Your task to perform on an android device: turn on bluetooth scan Image 0: 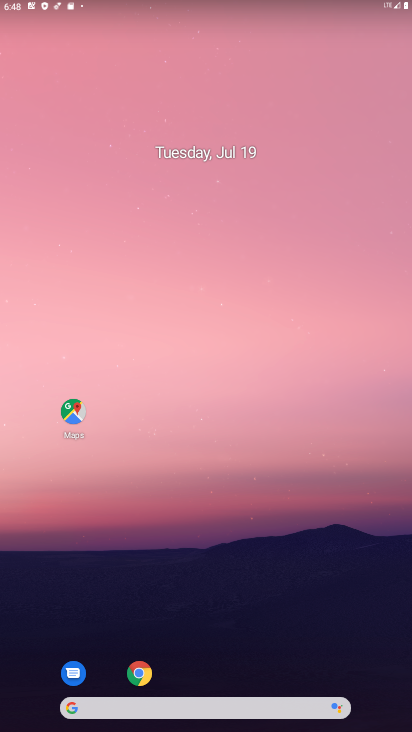
Step 0: drag from (369, 679) to (250, 16)
Your task to perform on an android device: turn on bluetooth scan Image 1: 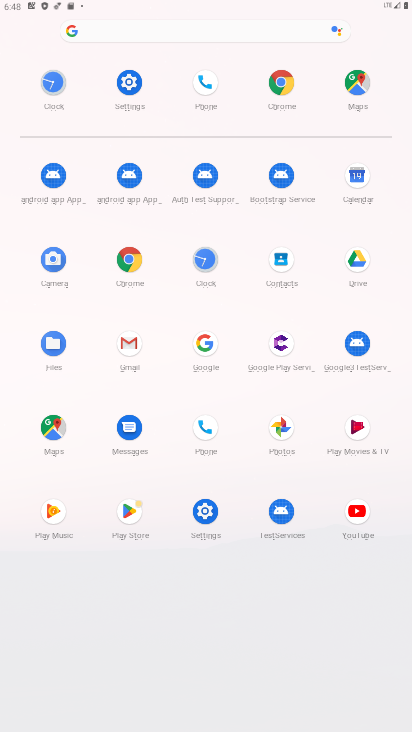
Step 1: click (205, 518)
Your task to perform on an android device: turn on bluetooth scan Image 2: 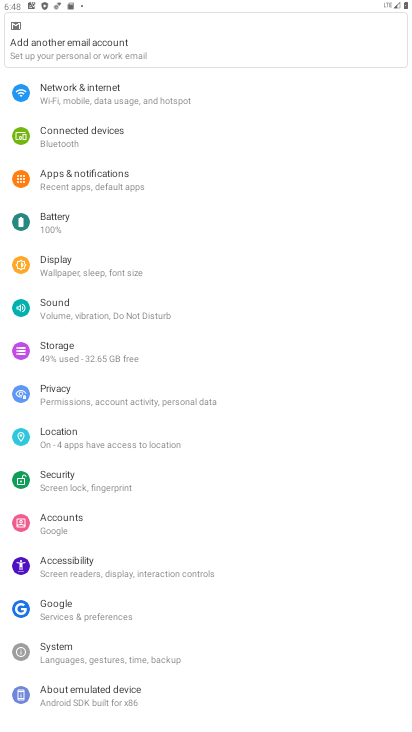
Step 2: click (61, 436)
Your task to perform on an android device: turn on bluetooth scan Image 3: 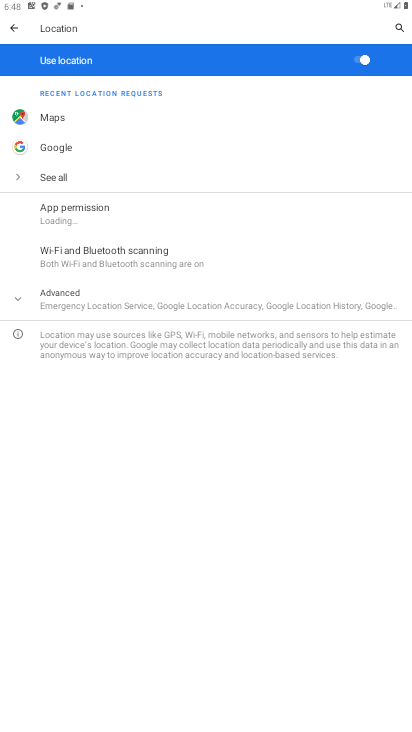
Step 3: click (120, 250)
Your task to perform on an android device: turn on bluetooth scan Image 4: 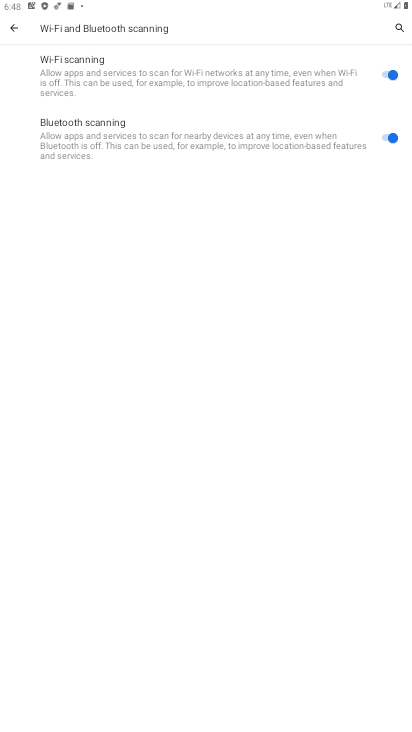
Step 4: task complete